Your task to perform on an android device: turn on showing notifications on the lock screen Image 0: 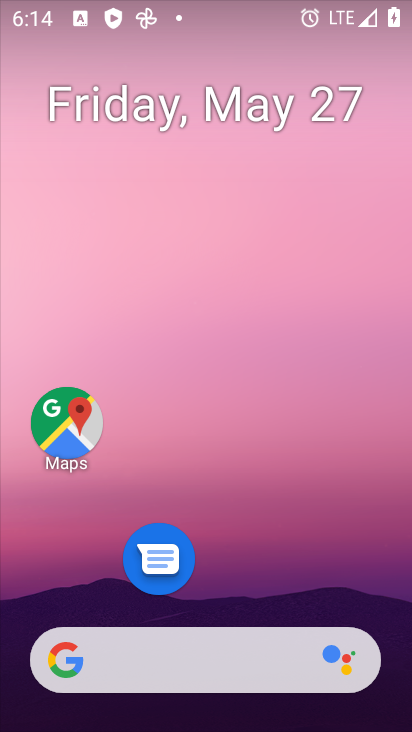
Step 0: drag from (313, 634) to (338, 17)
Your task to perform on an android device: turn on showing notifications on the lock screen Image 1: 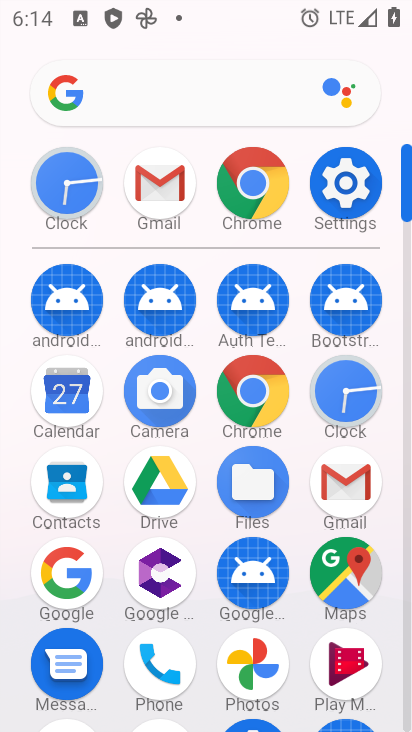
Step 1: click (371, 189)
Your task to perform on an android device: turn on showing notifications on the lock screen Image 2: 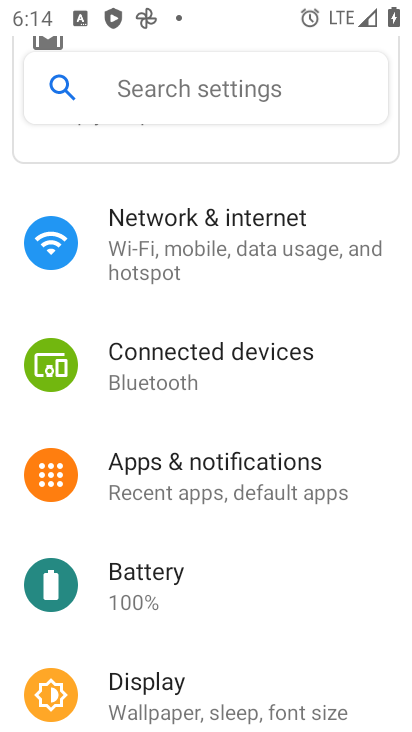
Step 2: click (201, 485)
Your task to perform on an android device: turn on showing notifications on the lock screen Image 3: 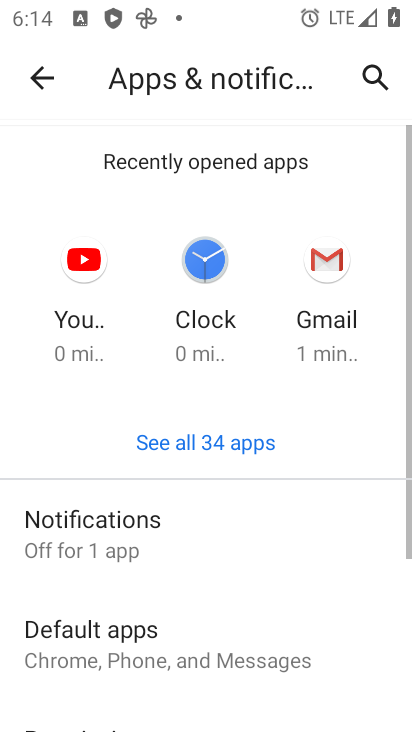
Step 3: drag from (207, 645) to (324, 15)
Your task to perform on an android device: turn on showing notifications on the lock screen Image 4: 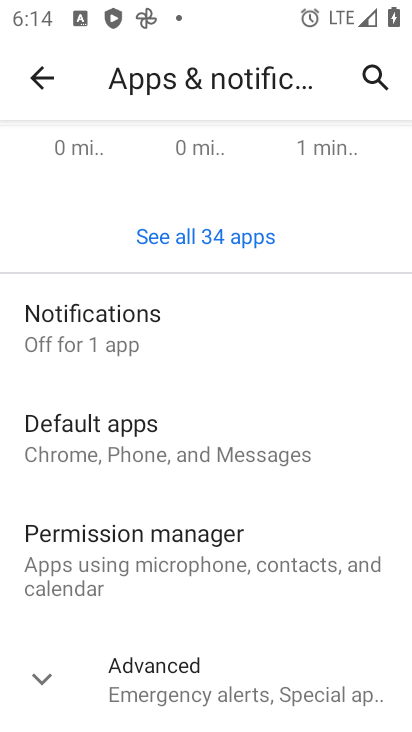
Step 4: click (213, 694)
Your task to perform on an android device: turn on showing notifications on the lock screen Image 5: 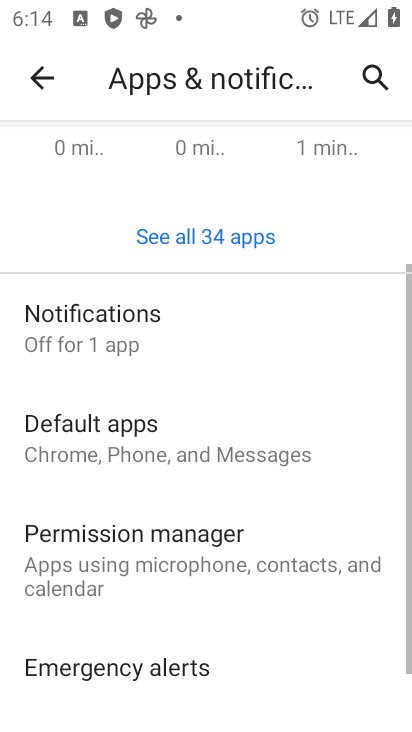
Step 5: click (149, 327)
Your task to perform on an android device: turn on showing notifications on the lock screen Image 6: 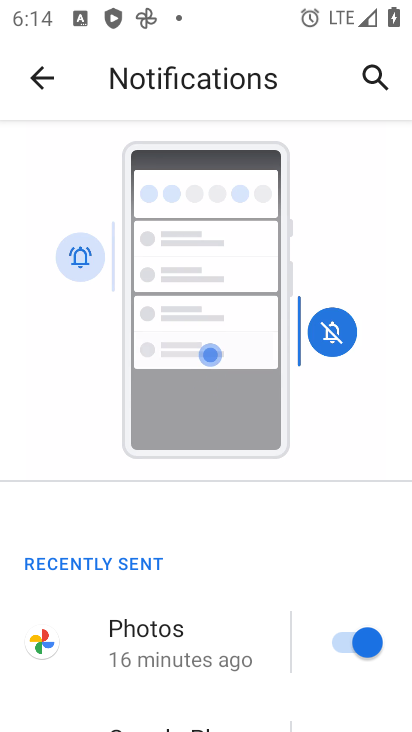
Step 6: drag from (300, 627) to (361, 84)
Your task to perform on an android device: turn on showing notifications on the lock screen Image 7: 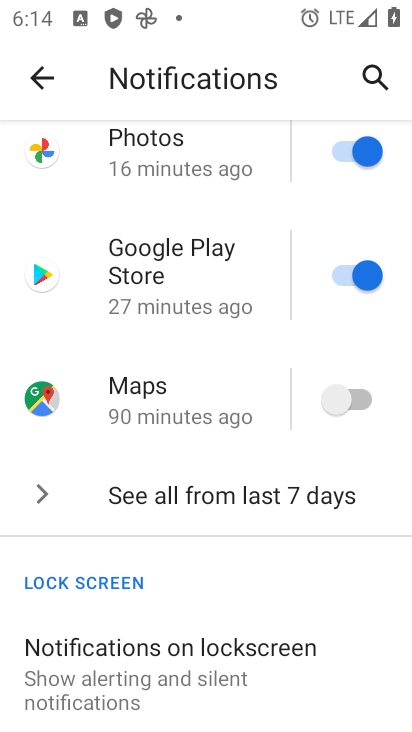
Step 7: click (271, 670)
Your task to perform on an android device: turn on showing notifications on the lock screen Image 8: 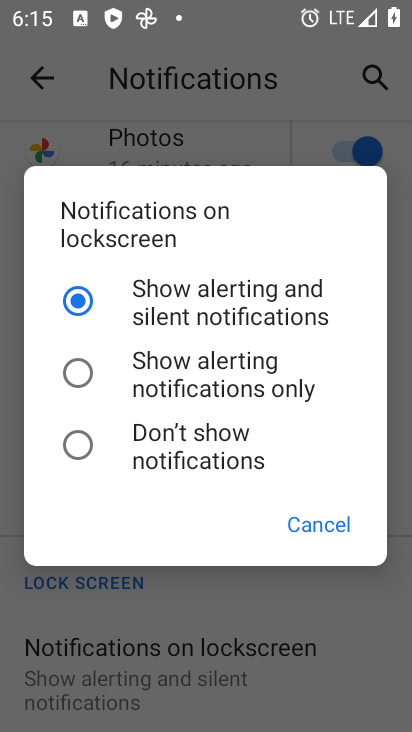
Step 8: task complete